Your task to perform on an android device: install app "Viber Messenger" Image 0: 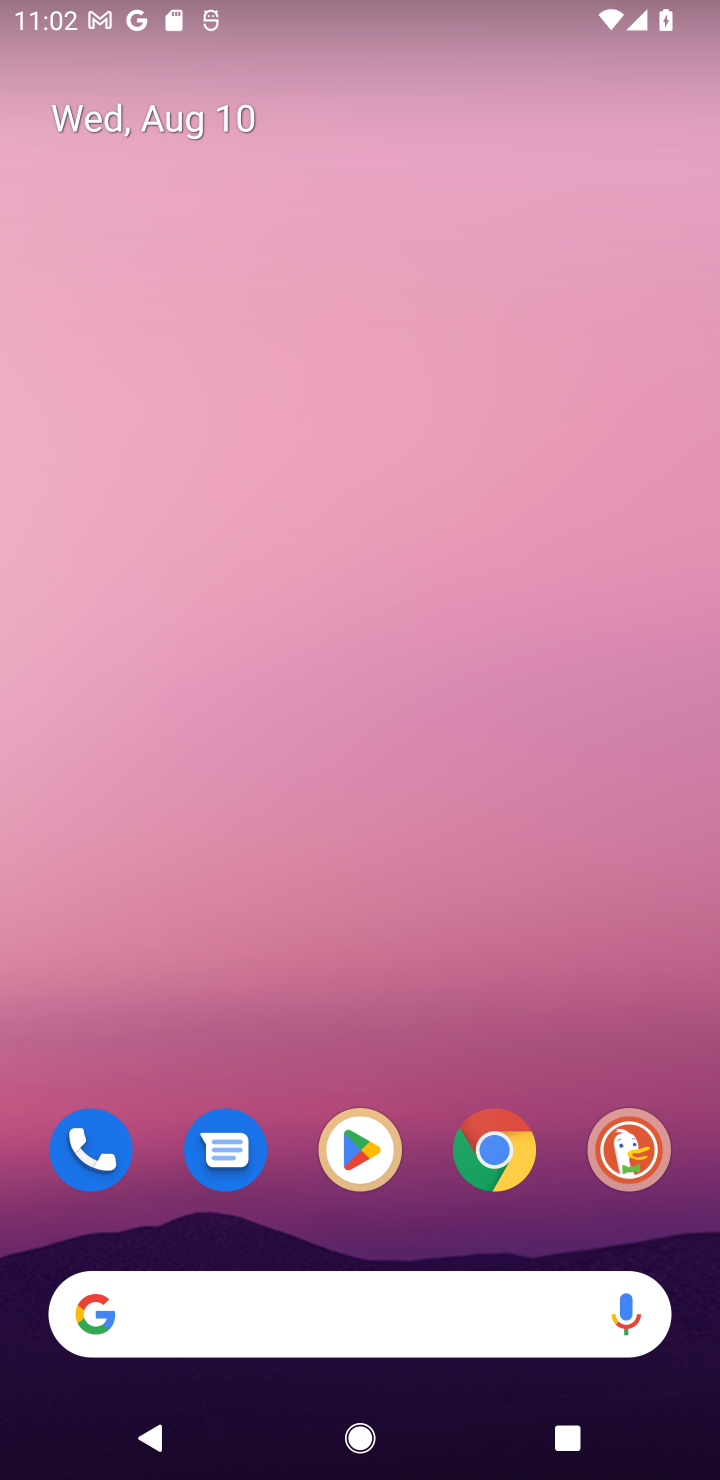
Step 0: click (391, 1150)
Your task to perform on an android device: install app "Viber Messenger" Image 1: 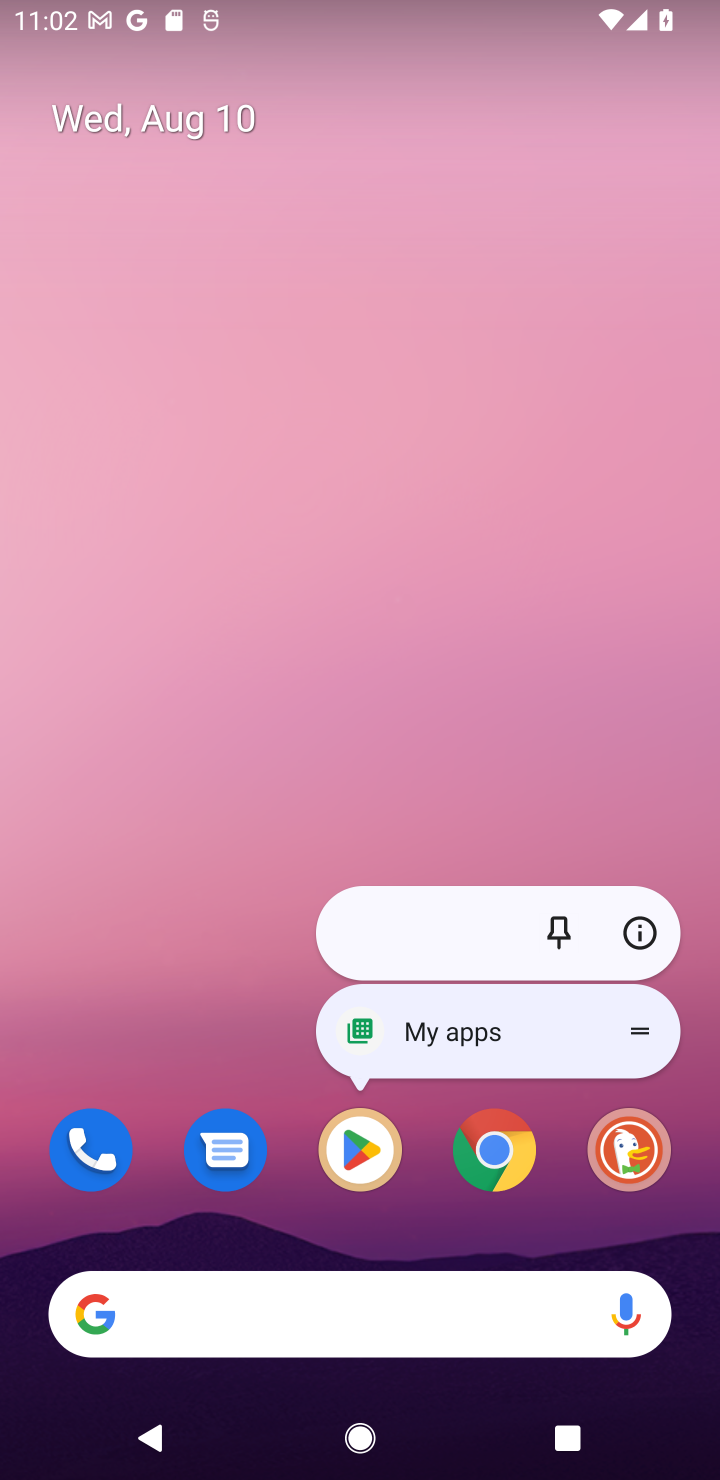
Step 1: click (391, 1150)
Your task to perform on an android device: install app "Viber Messenger" Image 2: 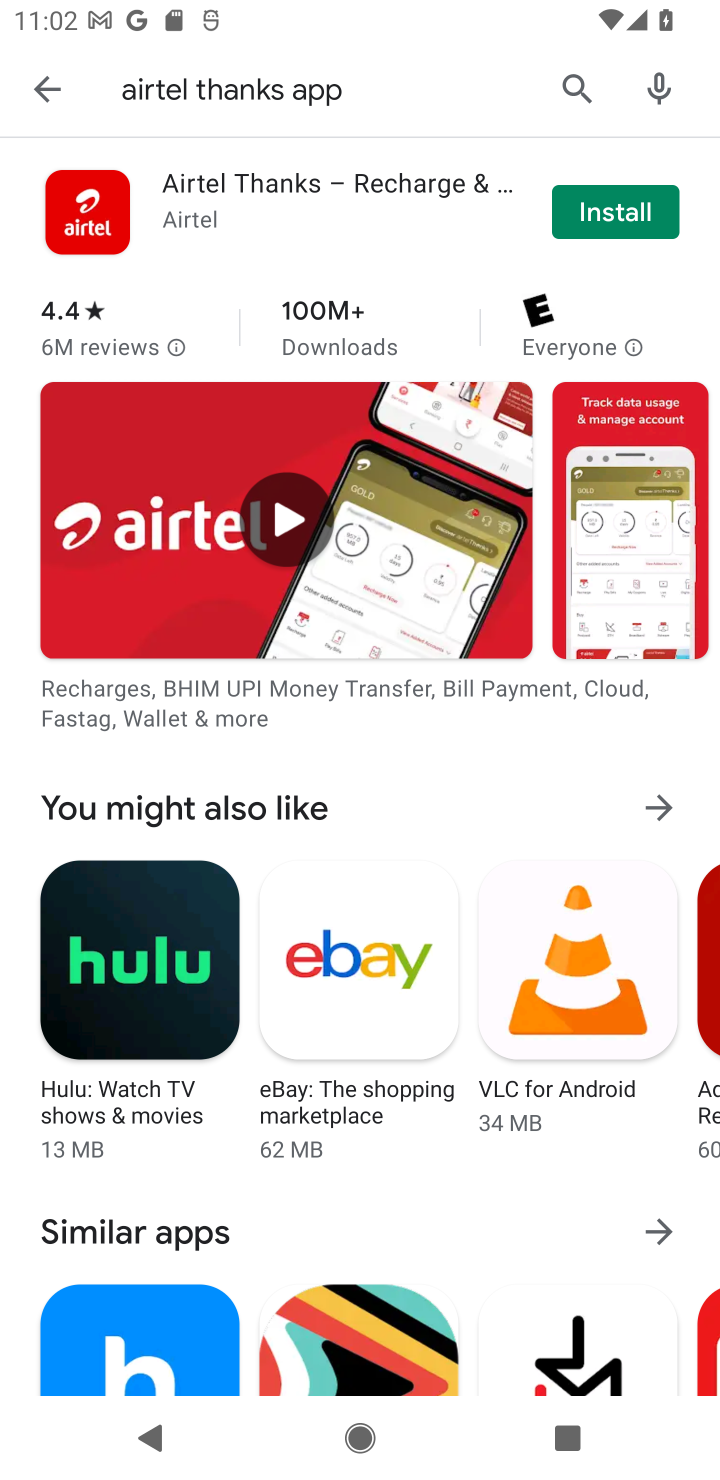
Step 2: click (558, 95)
Your task to perform on an android device: install app "Viber Messenger" Image 3: 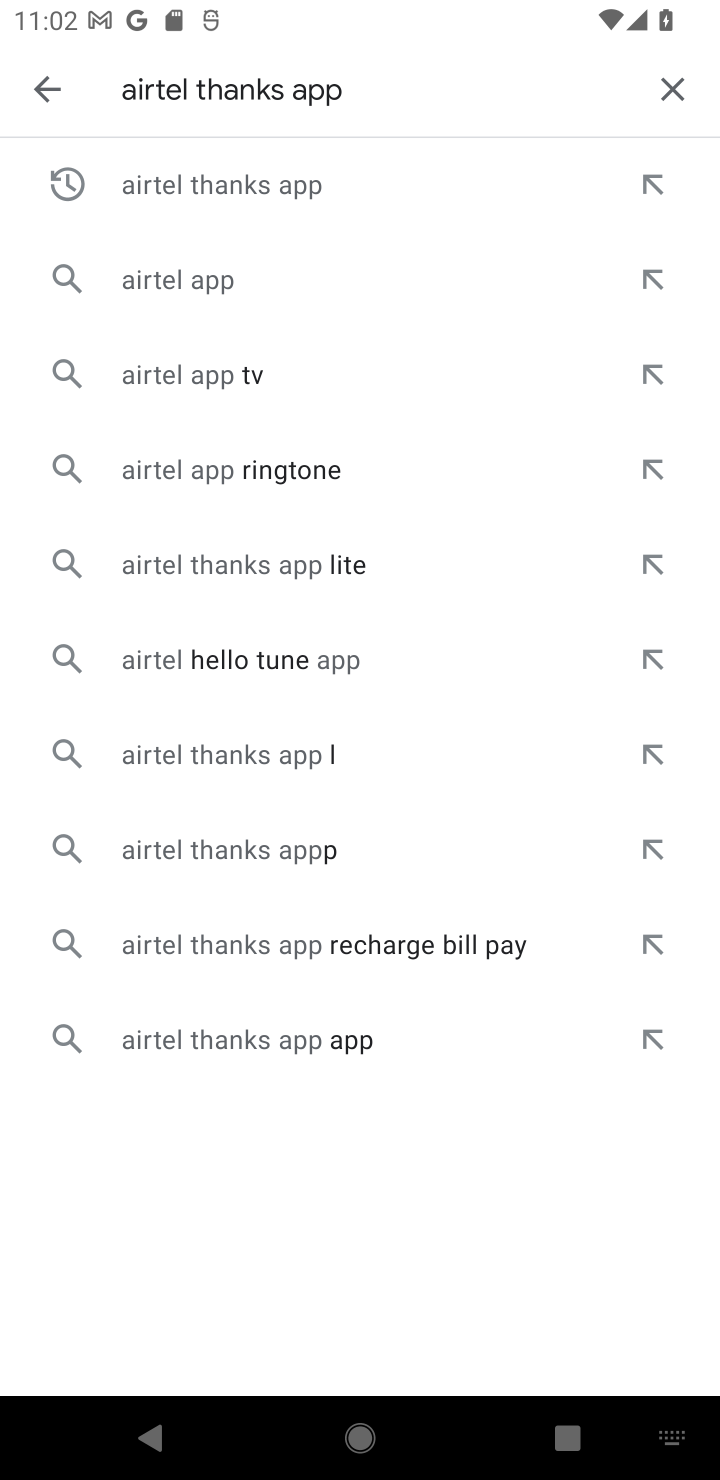
Step 3: click (661, 84)
Your task to perform on an android device: install app "Viber Messenger" Image 4: 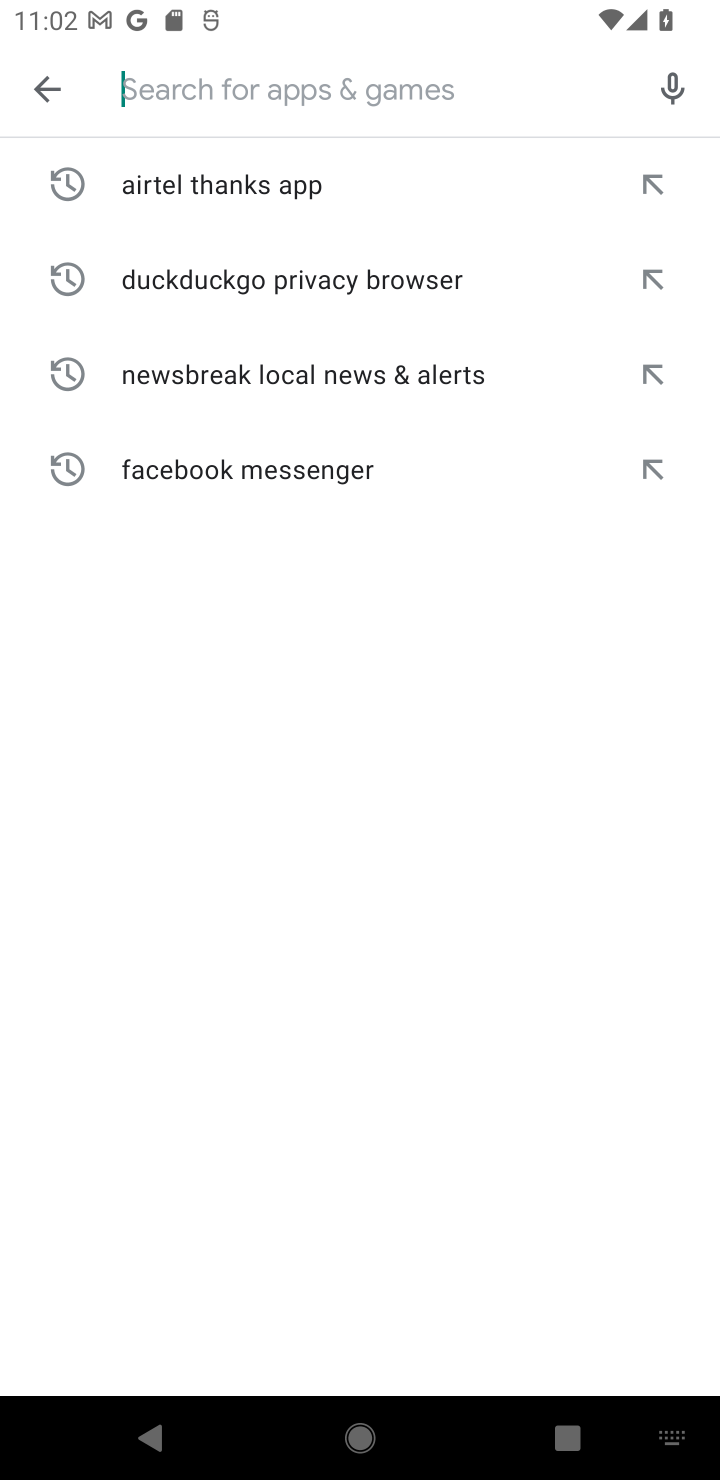
Step 4: type "Viber Messenger"
Your task to perform on an android device: install app "Viber Messenger" Image 5: 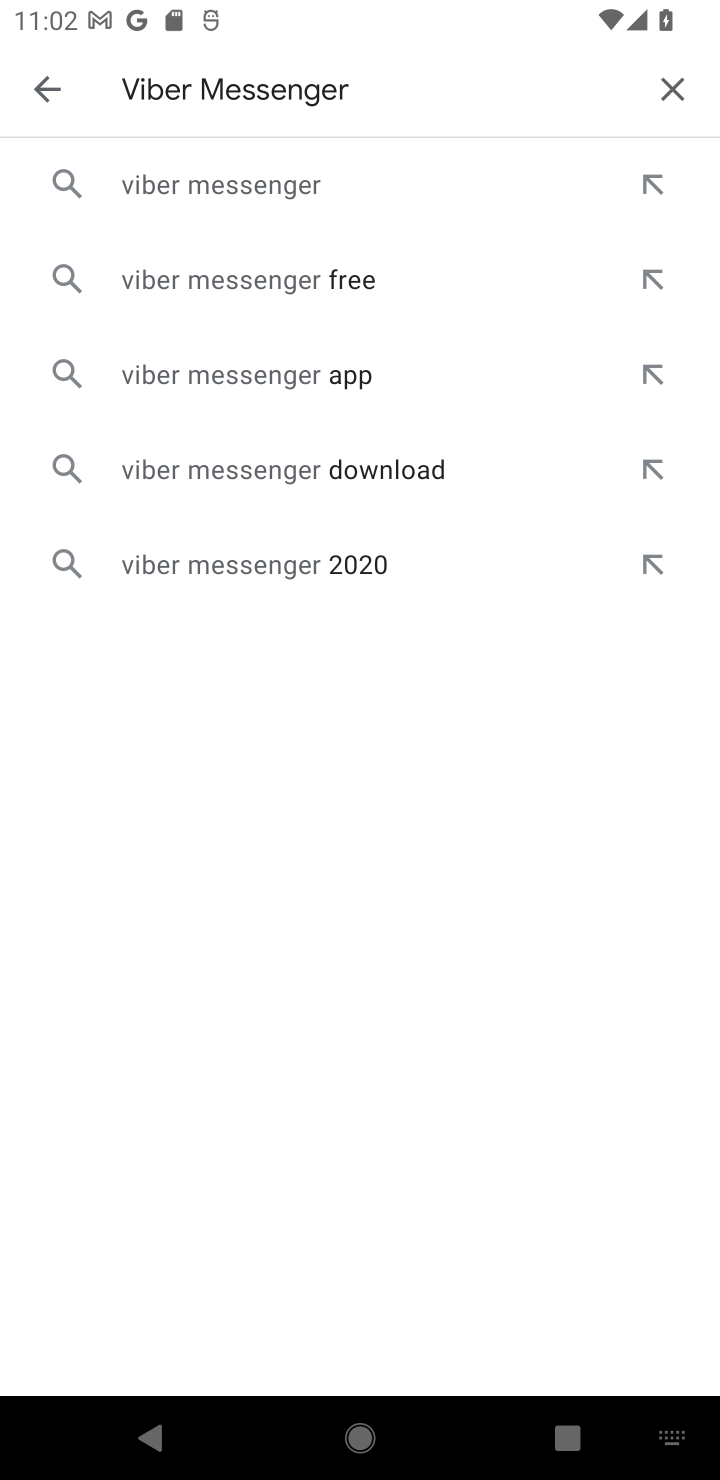
Step 5: click (195, 187)
Your task to perform on an android device: install app "Viber Messenger" Image 6: 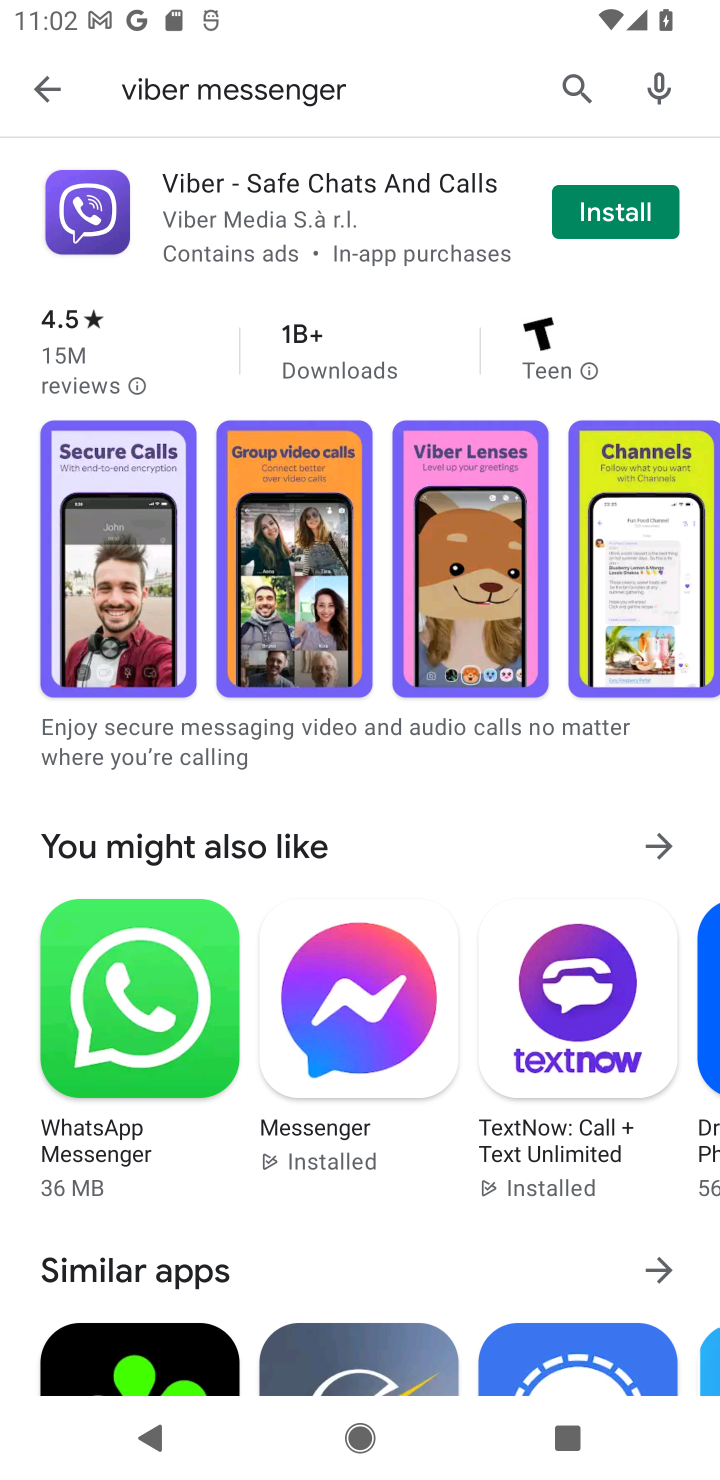
Step 6: click (600, 201)
Your task to perform on an android device: install app "Viber Messenger" Image 7: 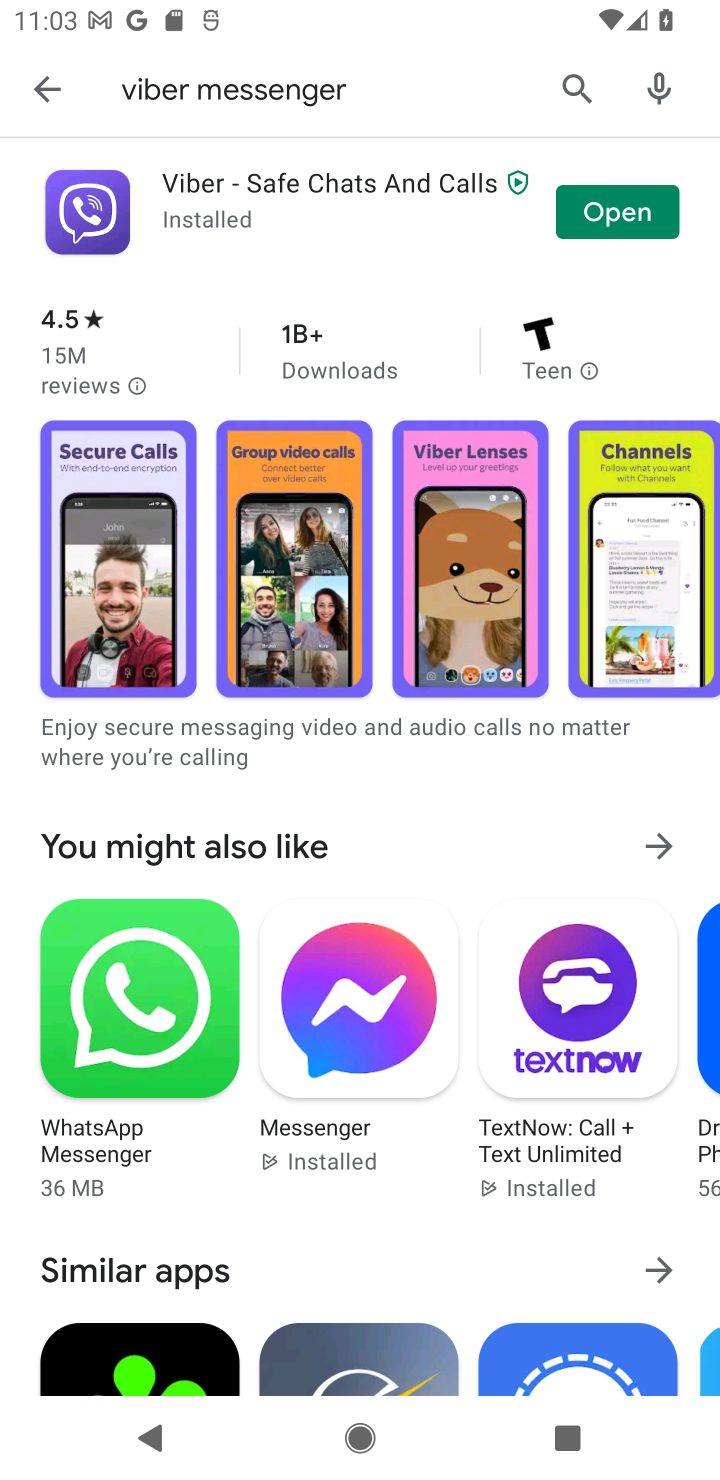
Step 7: task complete